Your task to perform on an android device: change text size in settings app Image 0: 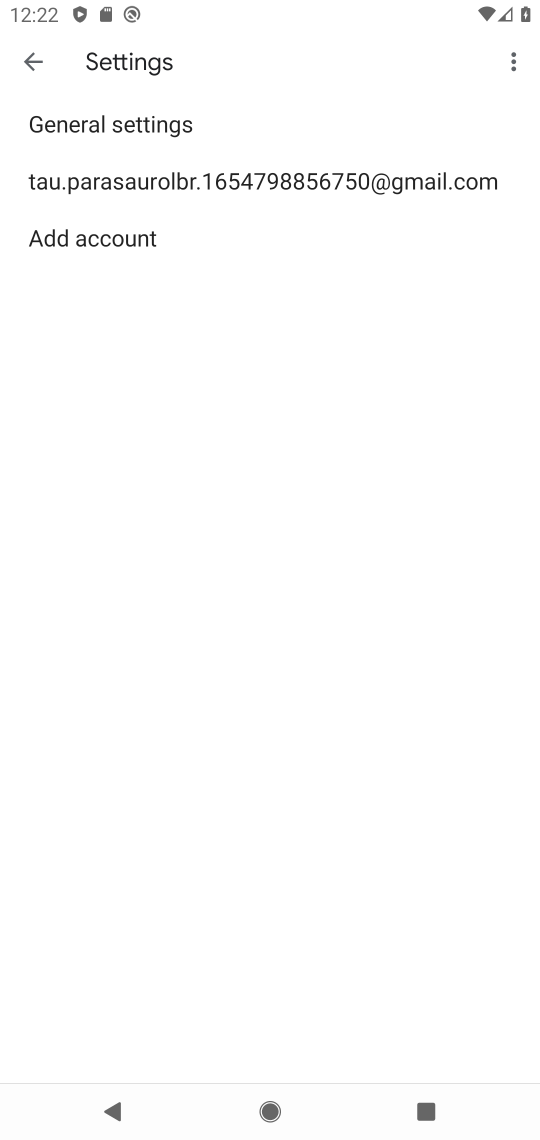
Step 0: press home button
Your task to perform on an android device: change text size in settings app Image 1: 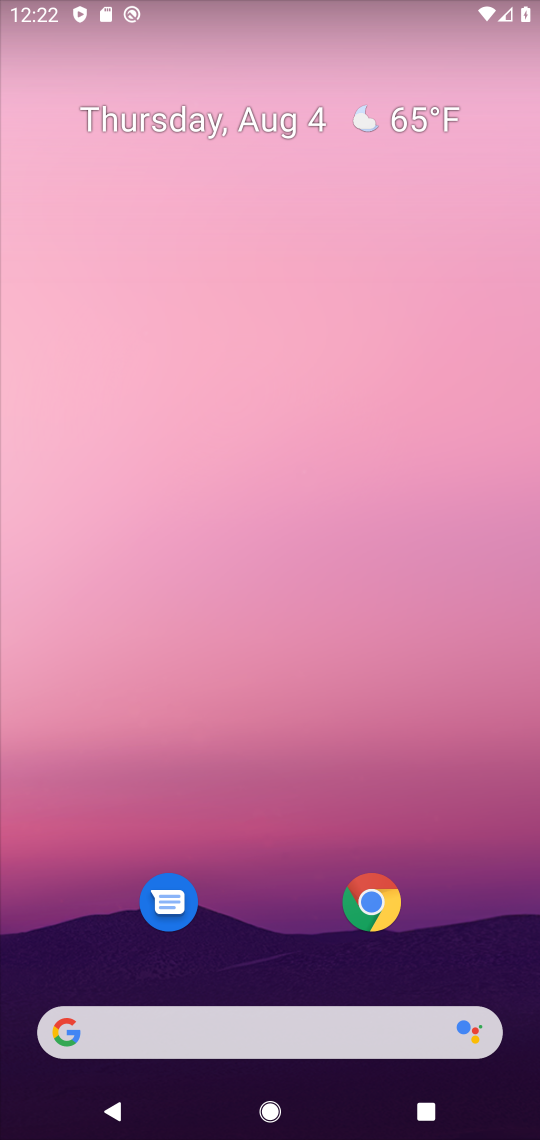
Step 1: drag from (474, 957) to (458, 131)
Your task to perform on an android device: change text size in settings app Image 2: 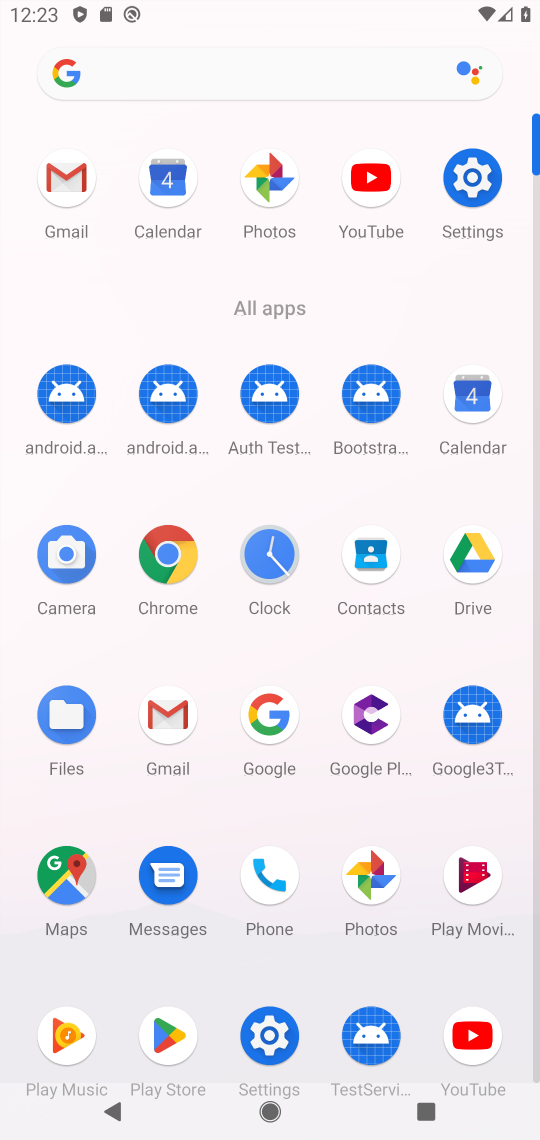
Step 2: click (271, 1032)
Your task to perform on an android device: change text size in settings app Image 3: 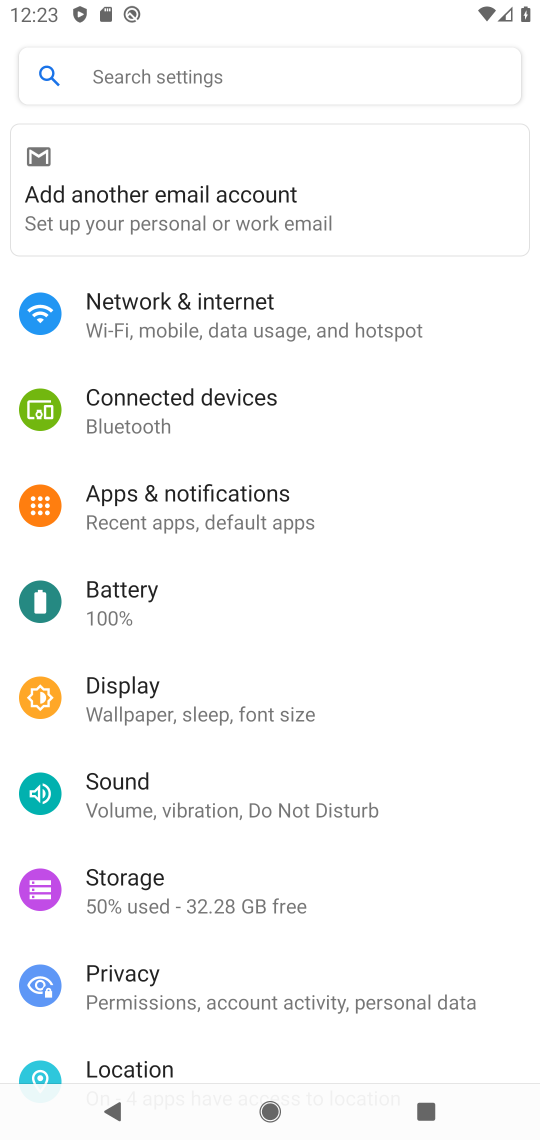
Step 3: click (155, 685)
Your task to perform on an android device: change text size in settings app Image 4: 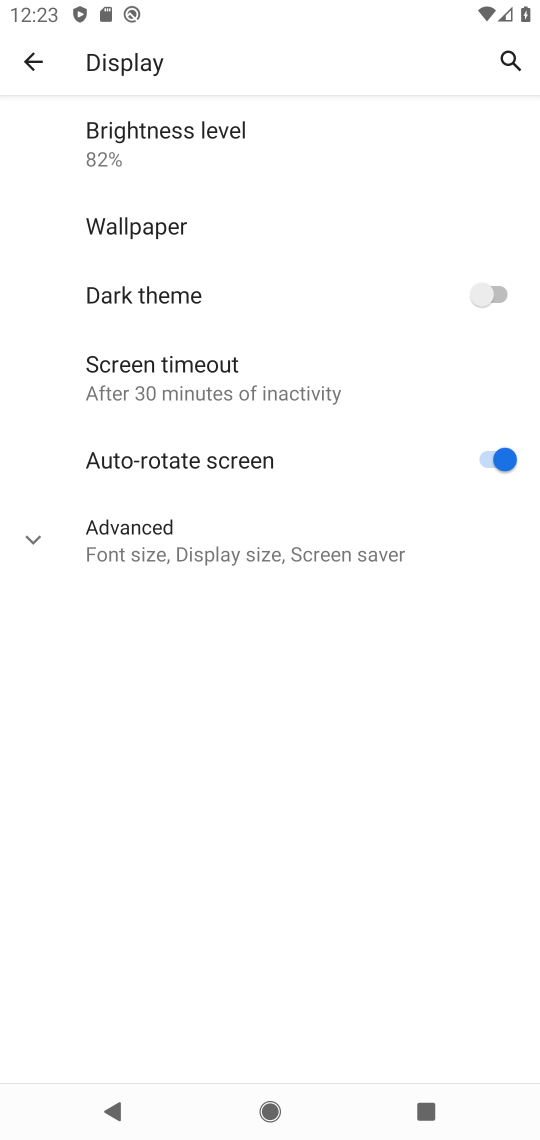
Step 4: click (36, 523)
Your task to perform on an android device: change text size in settings app Image 5: 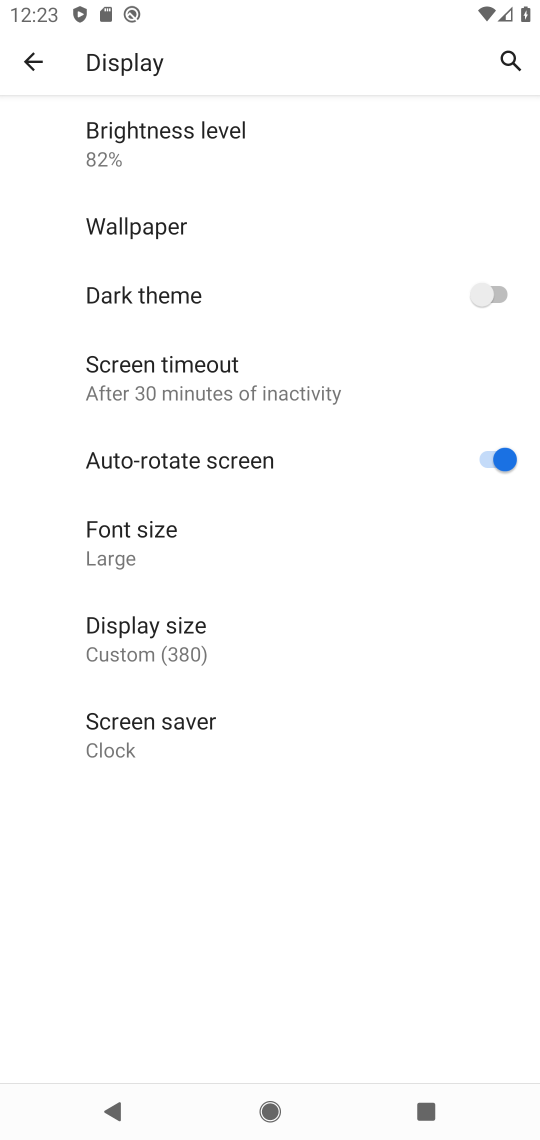
Step 5: click (110, 536)
Your task to perform on an android device: change text size in settings app Image 6: 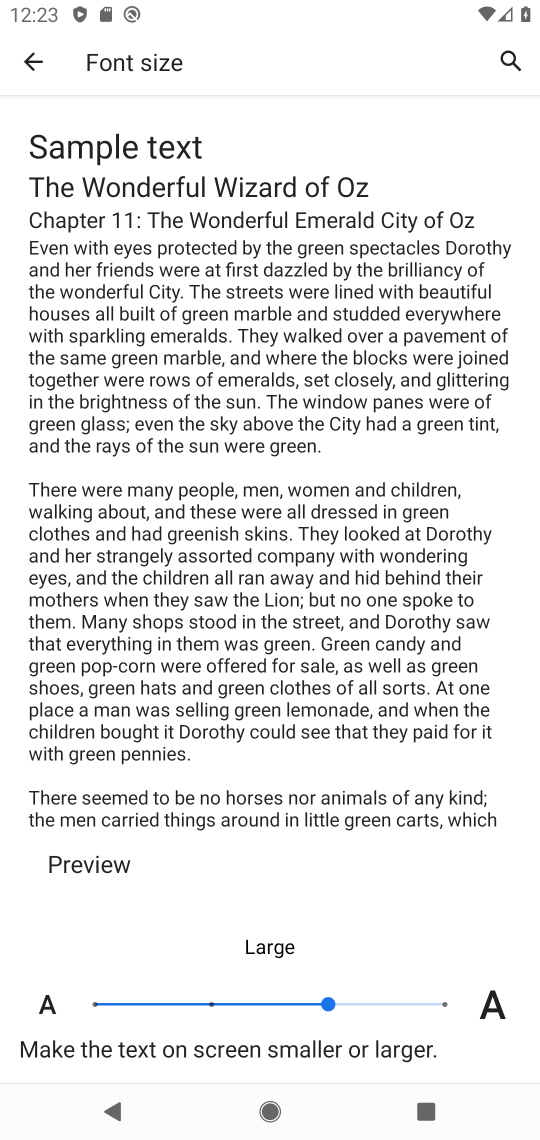
Step 6: click (446, 1000)
Your task to perform on an android device: change text size in settings app Image 7: 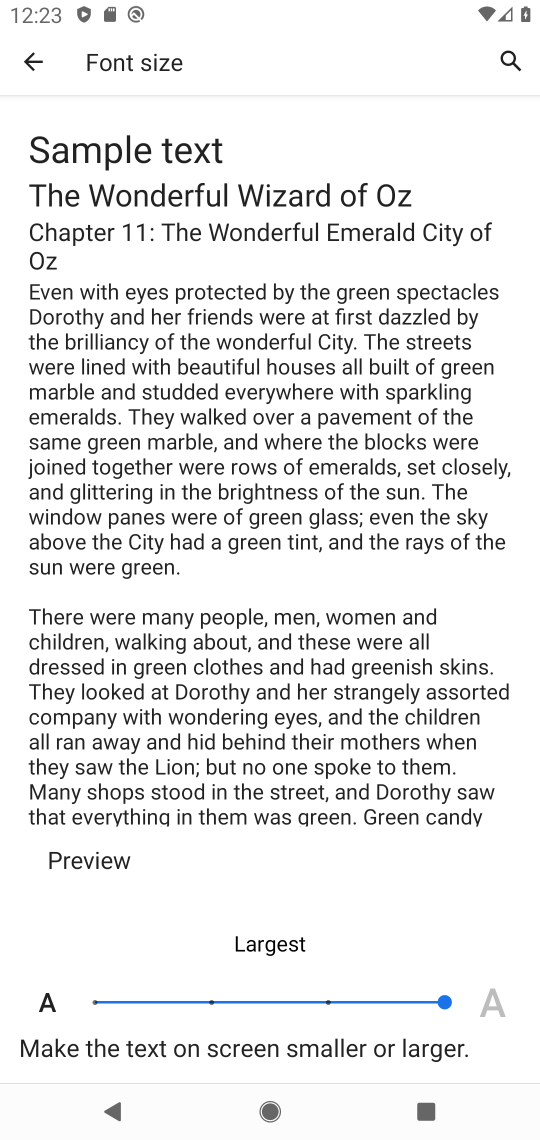
Step 7: task complete